Your task to perform on an android device: Check out the new nike air max 2020. Image 0: 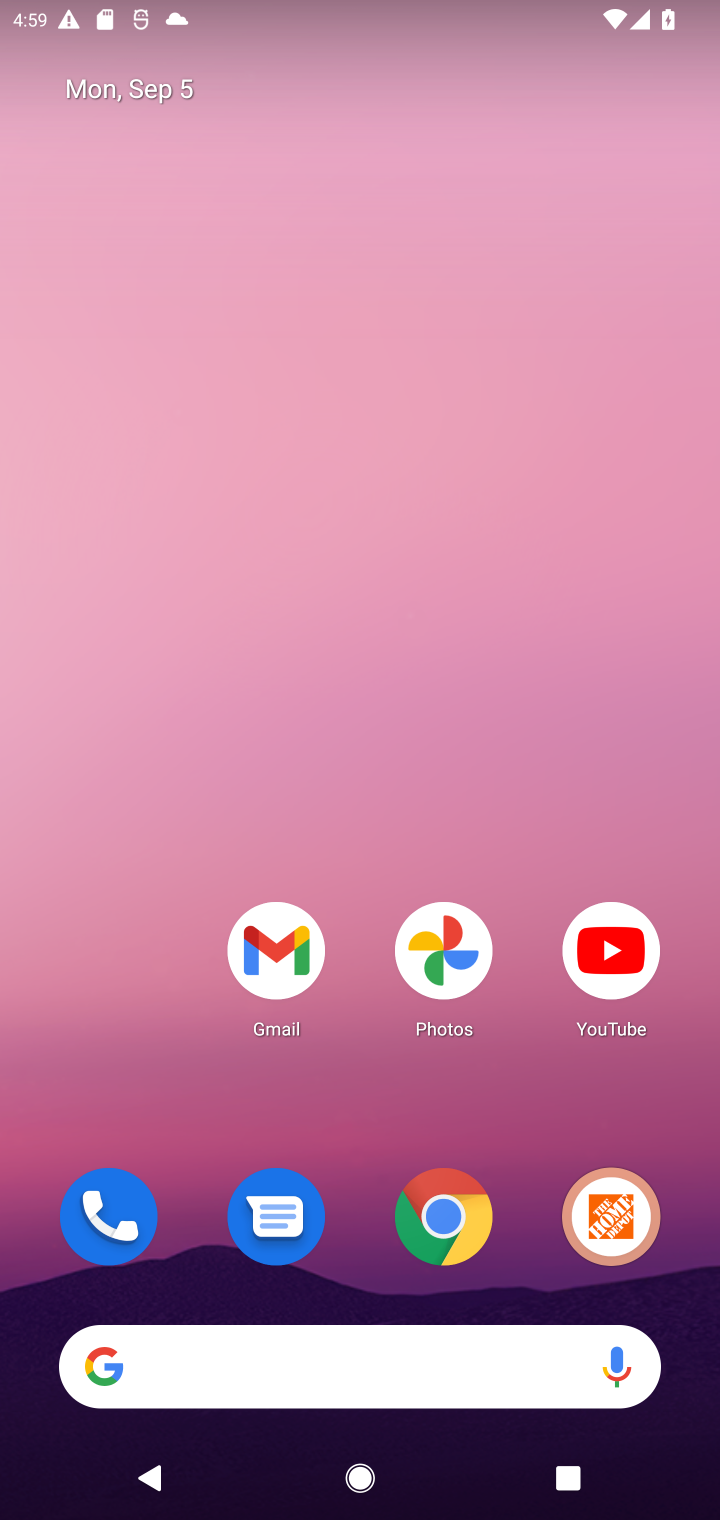
Step 0: press home button
Your task to perform on an android device: Check out the new nike air max 2020. Image 1: 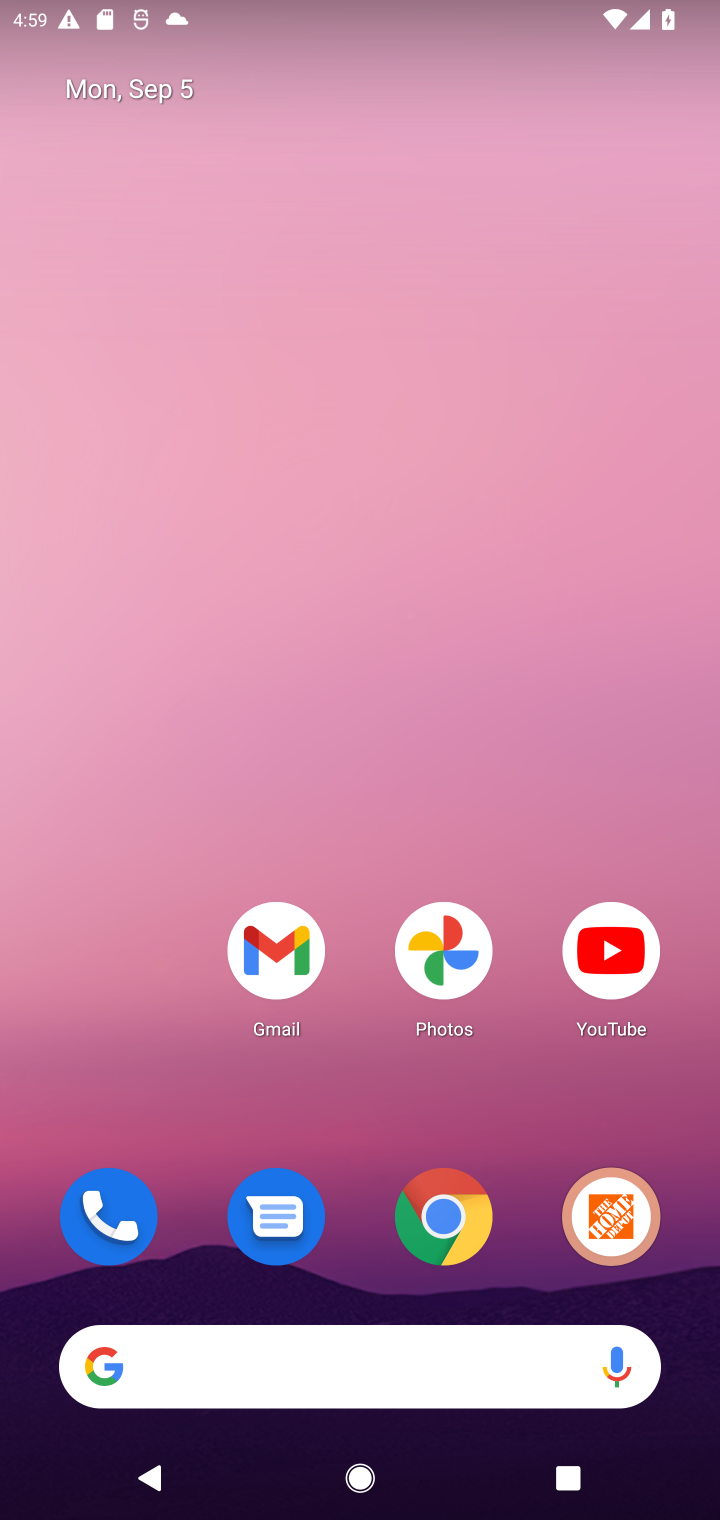
Step 1: click (111, 1372)
Your task to perform on an android device: Check out the new nike air max 2020. Image 2: 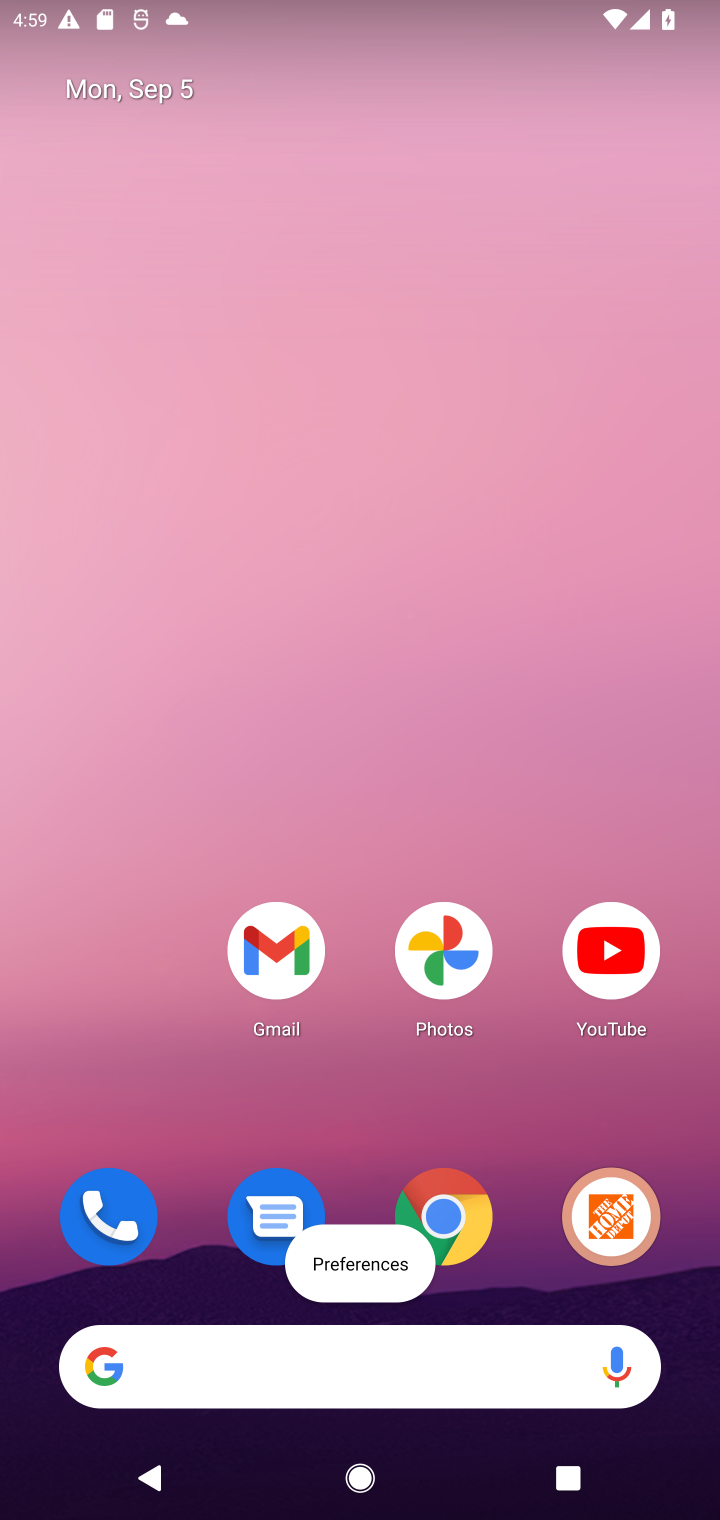
Step 2: click (99, 1359)
Your task to perform on an android device: Check out the new nike air max 2020. Image 3: 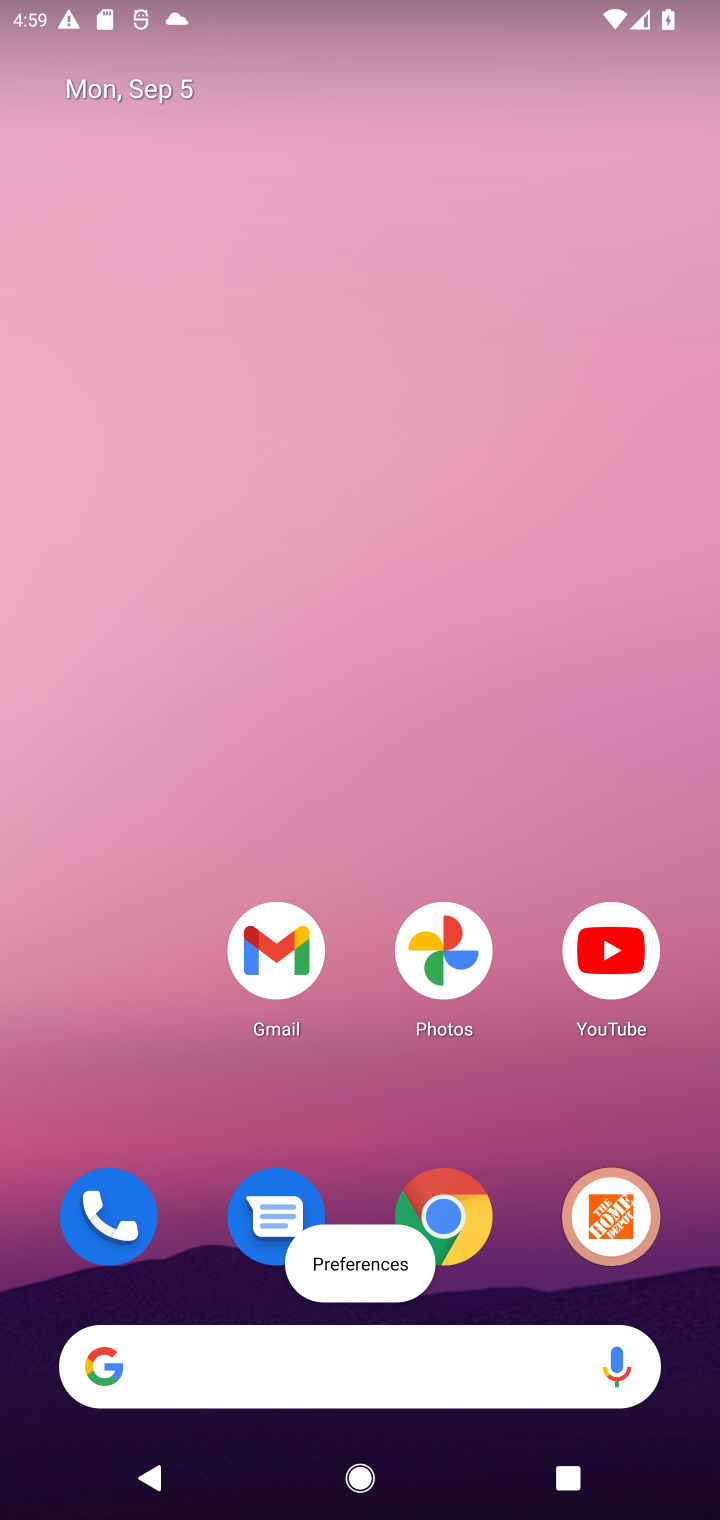
Step 3: click (99, 1371)
Your task to perform on an android device: Check out the new nike air max 2020. Image 4: 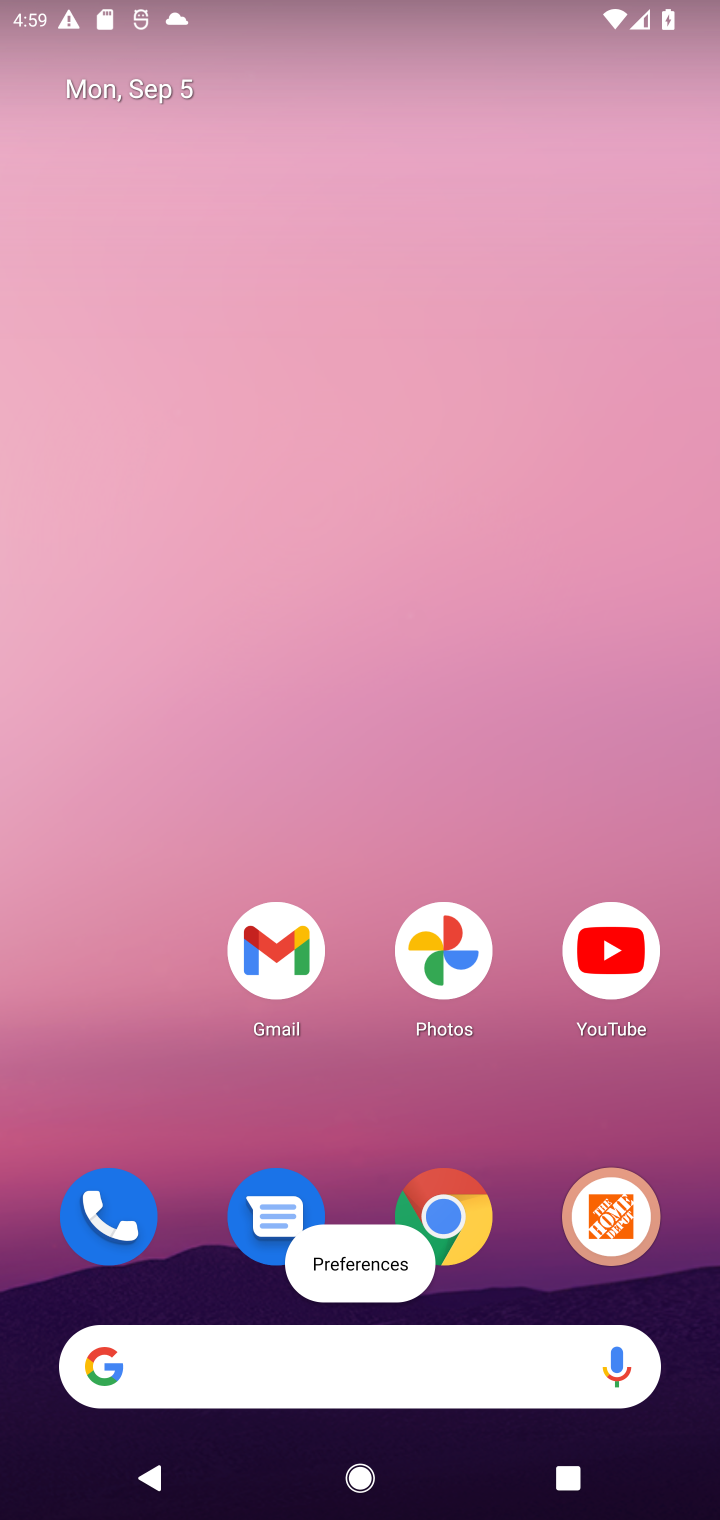
Step 4: click (99, 1371)
Your task to perform on an android device: Check out the new nike air max 2020. Image 5: 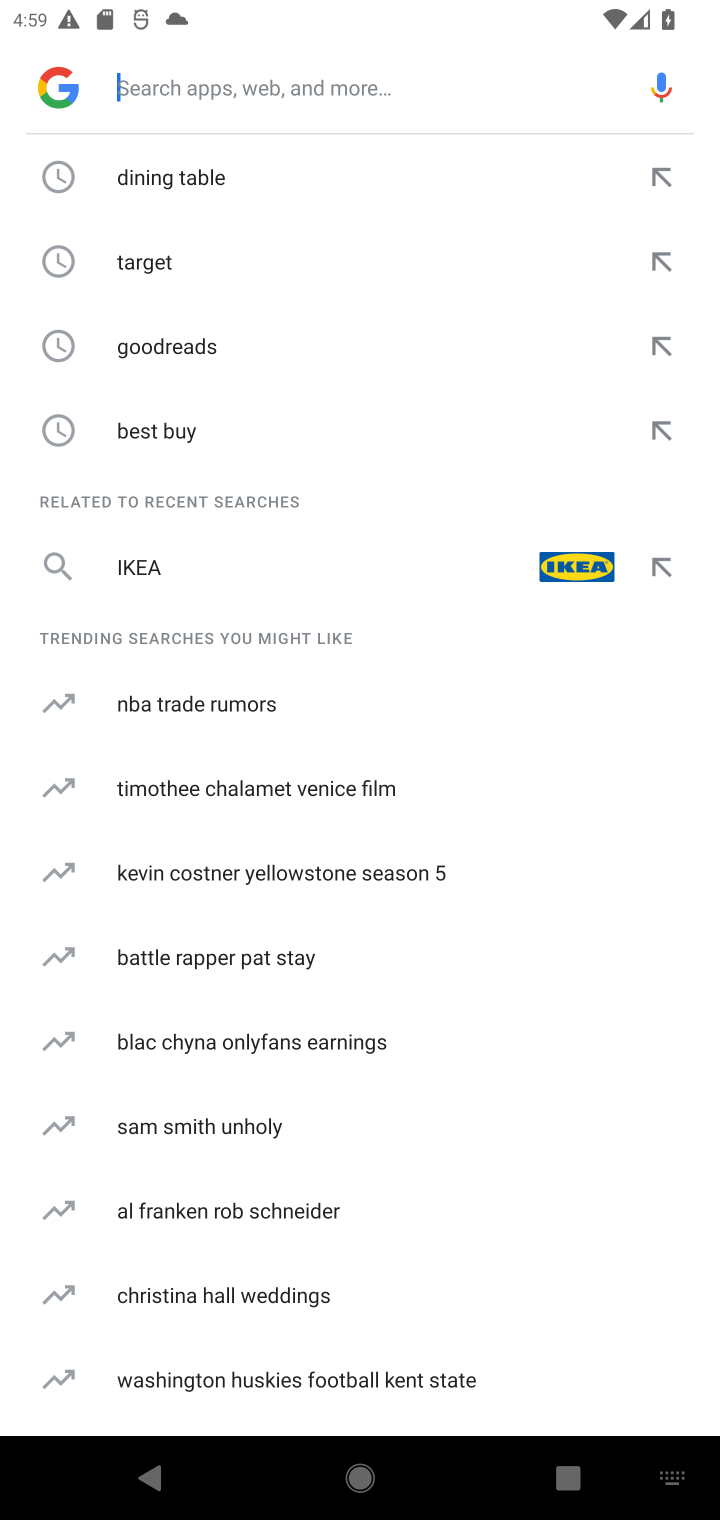
Step 5: click (265, 88)
Your task to perform on an android device: Check out the new nike air max 2020. Image 6: 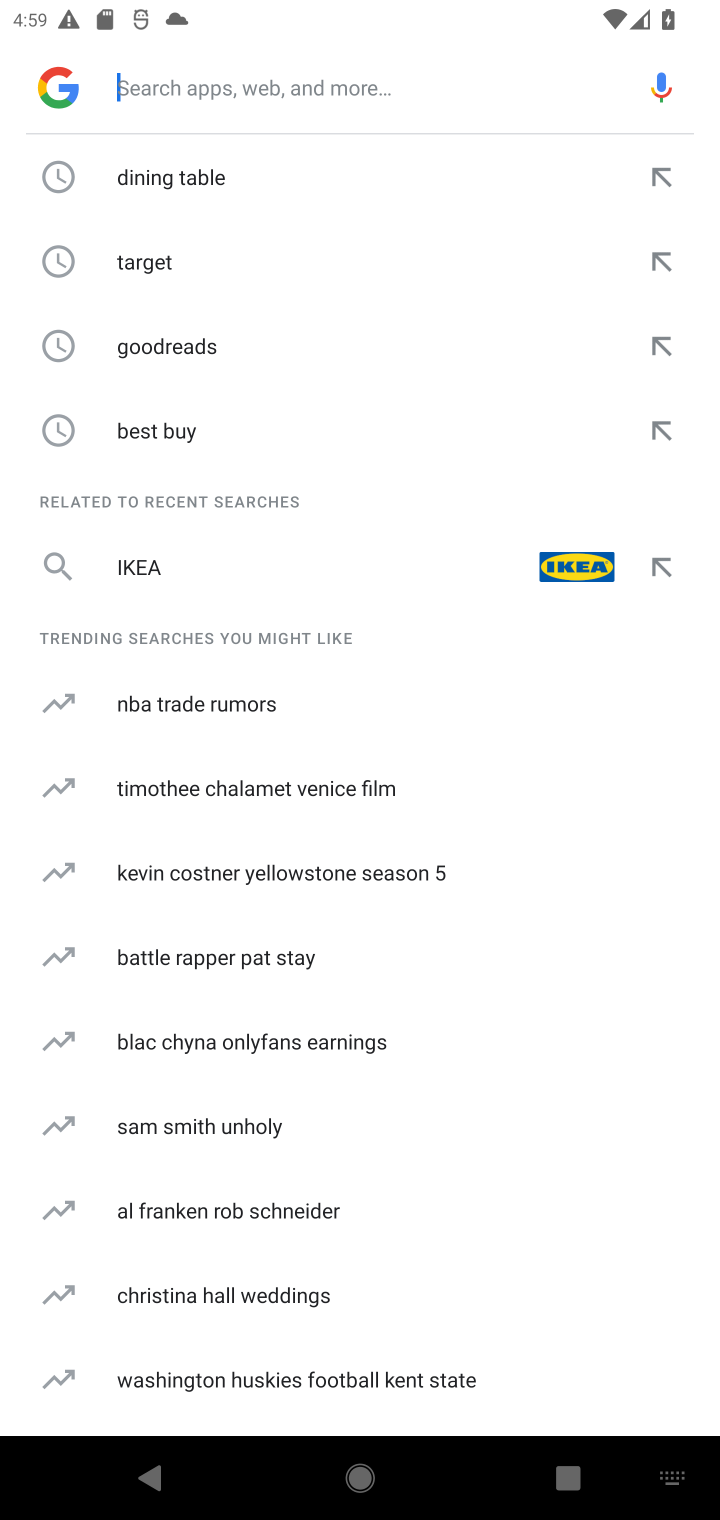
Step 6: type " new nike air max 2020"
Your task to perform on an android device: Check out the new nike air max 2020. Image 7: 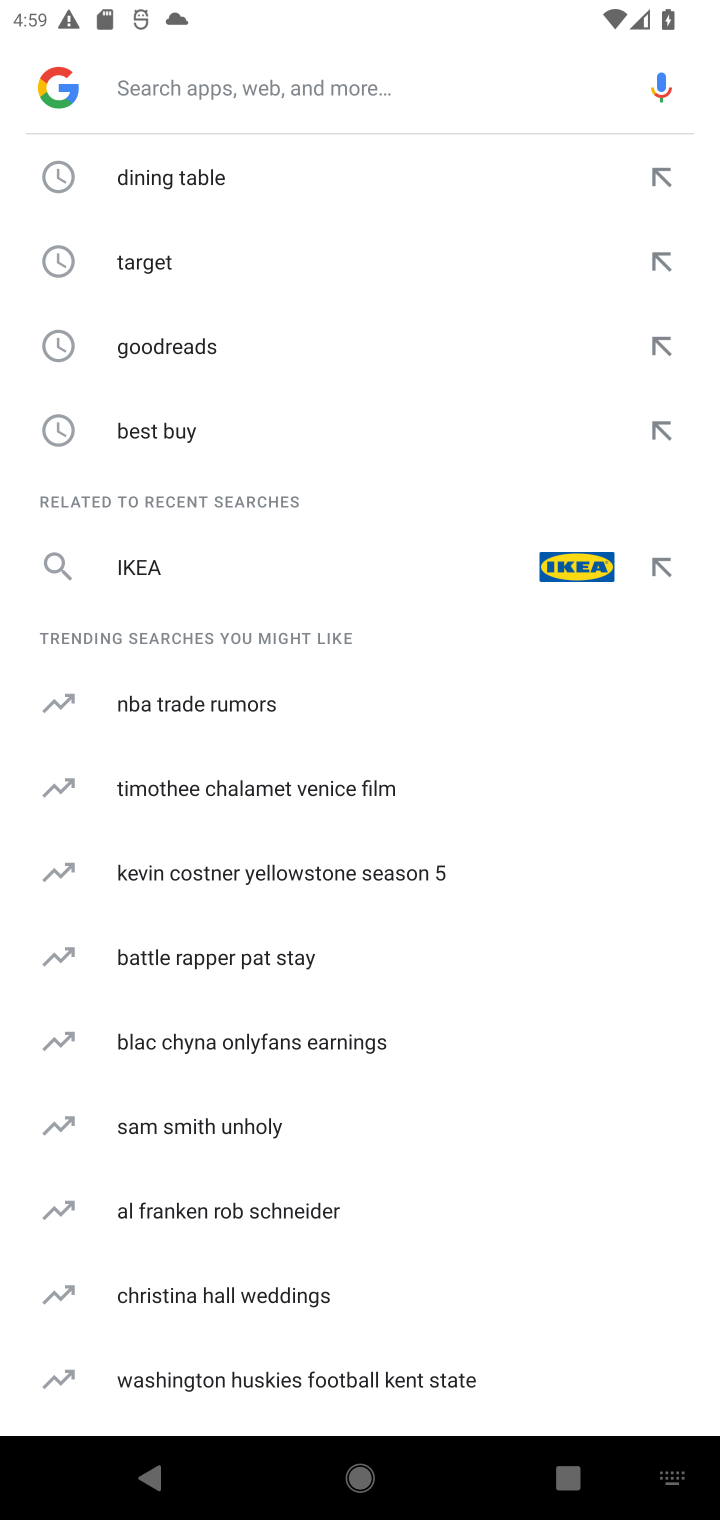
Step 7: click (191, 83)
Your task to perform on an android device: Check out the new nike air max 2020. Image 8: 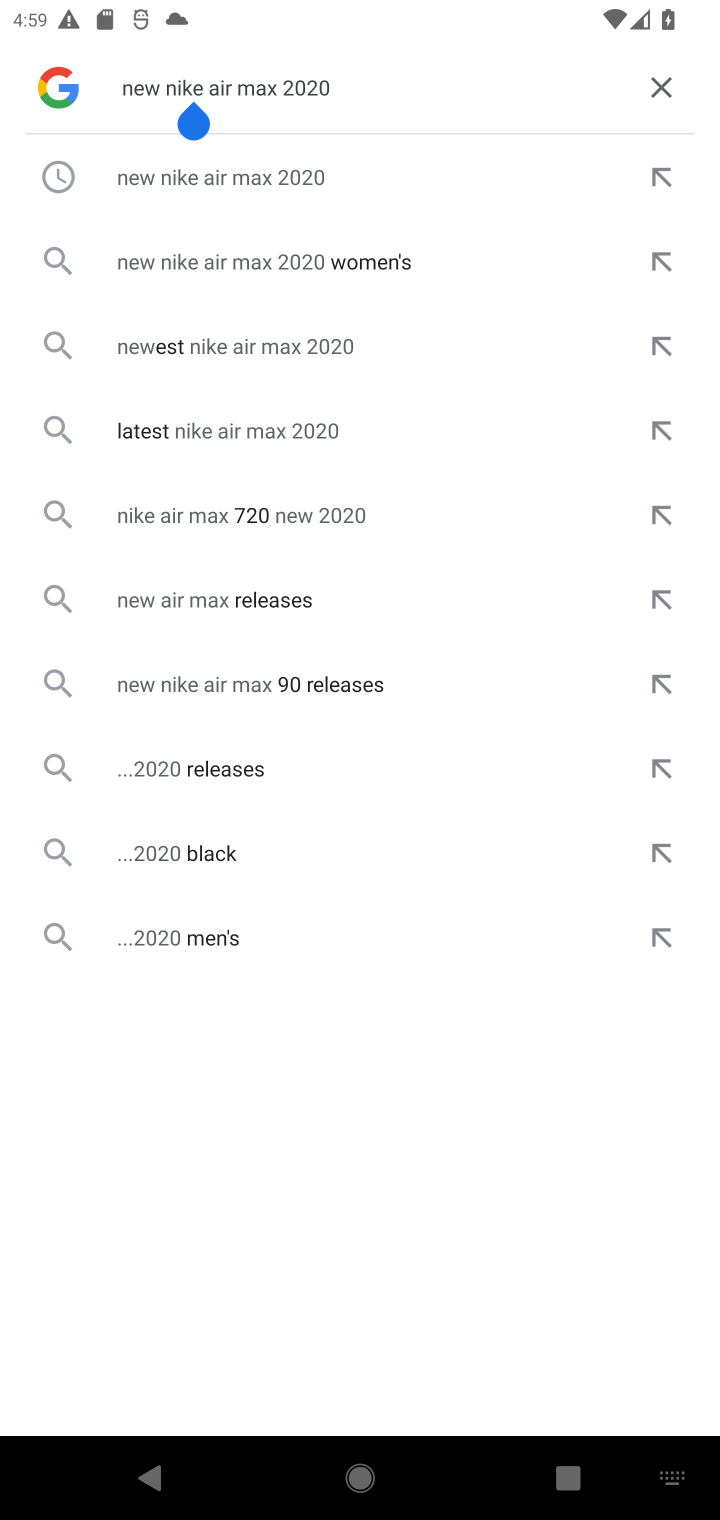
Step 8: press enter
Your task to perform on an android device: Check out the new nike air max 2020. Image 9: 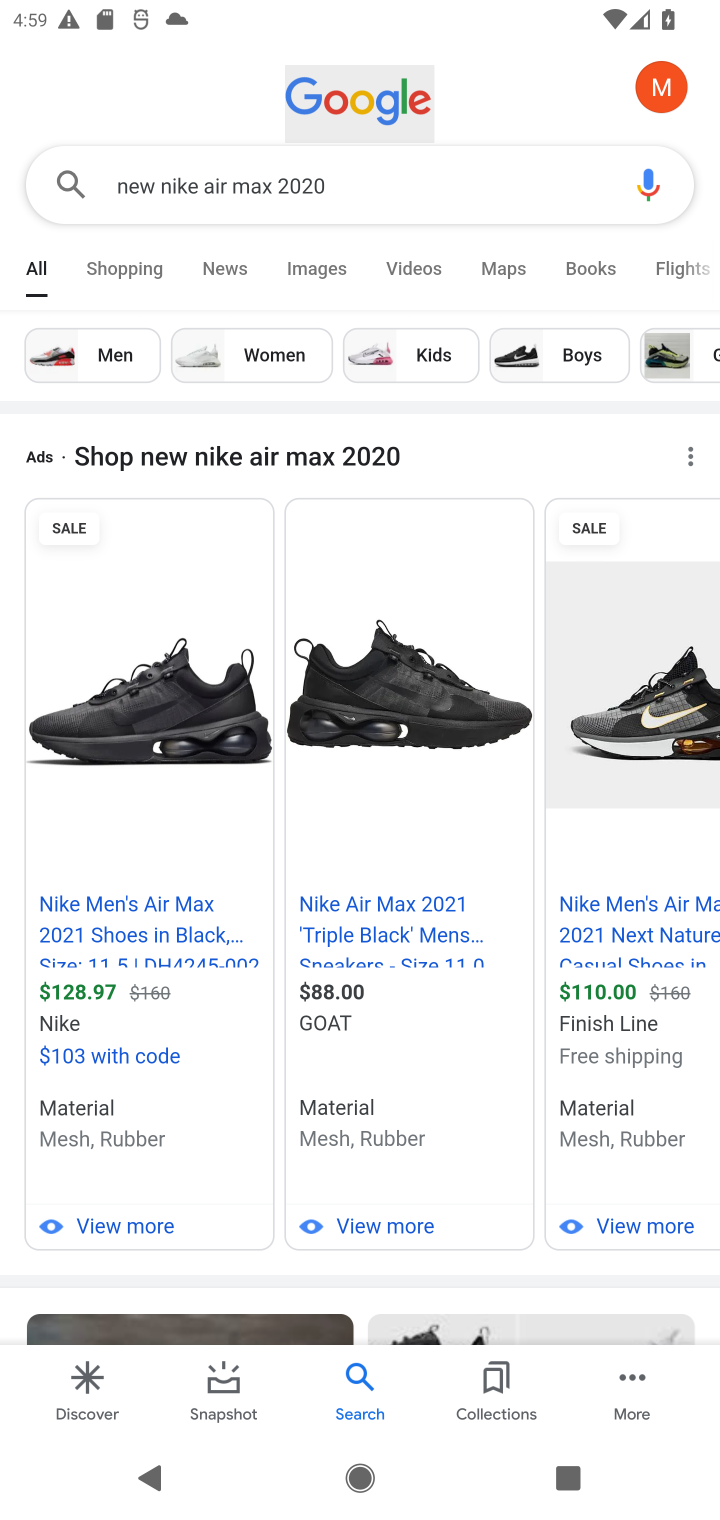
Step 9: task complete